Your task to perform on an android device: Go to Android settings Image 0: 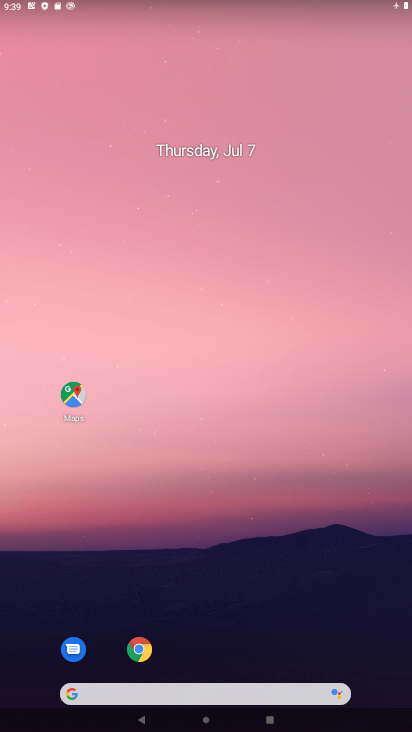
Step 0: drag from (240, 719) to (229, 99)
Your task to perform on an android device: Go to Android settings Image 1: 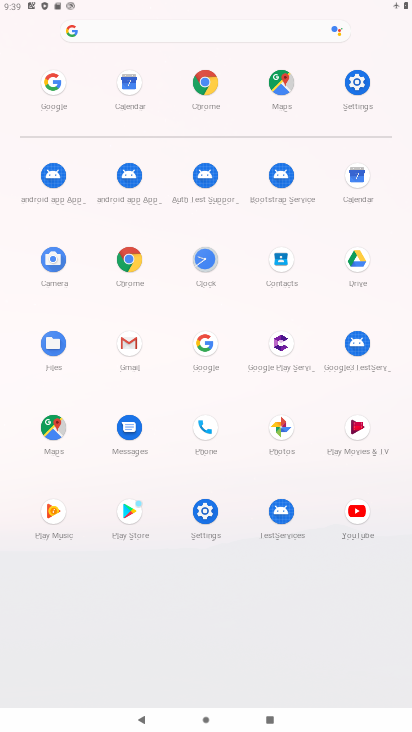
Step 1: click (359, 83)
Your task to perform on an android device: Go to Android settings Image 2: 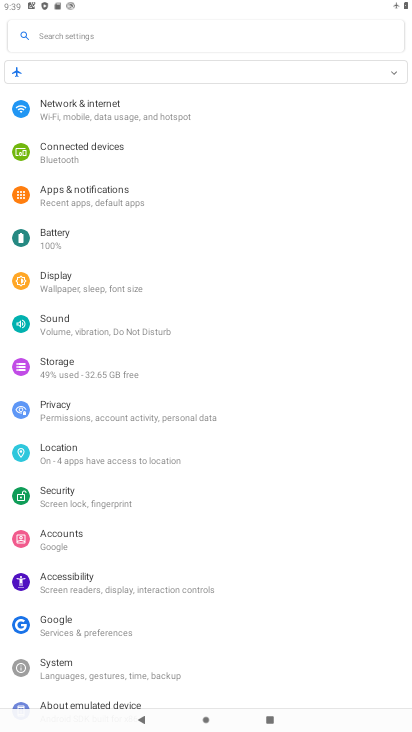
Step 2: task complete